Your task to perform on an android device: change notifications settings Image 0: 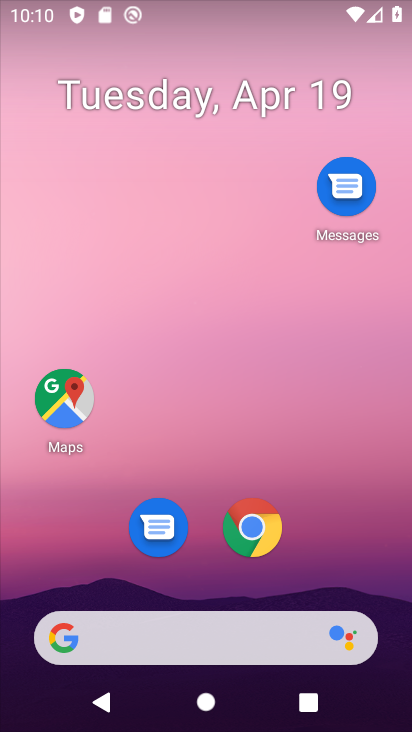
Step 0: drag from (327, 542) to (312, 209)
Your task to perform on an android device: change notifications settings Image 1: 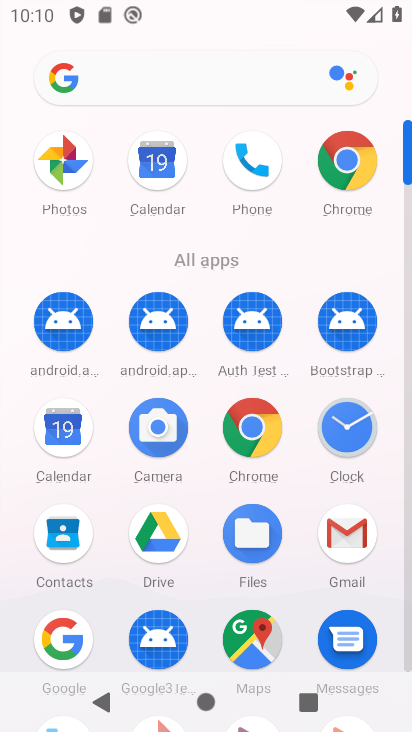
Step 1: drag from (303, 640) to (298, 313)
Your task to perform on an android device: change notifications settings Image 2: 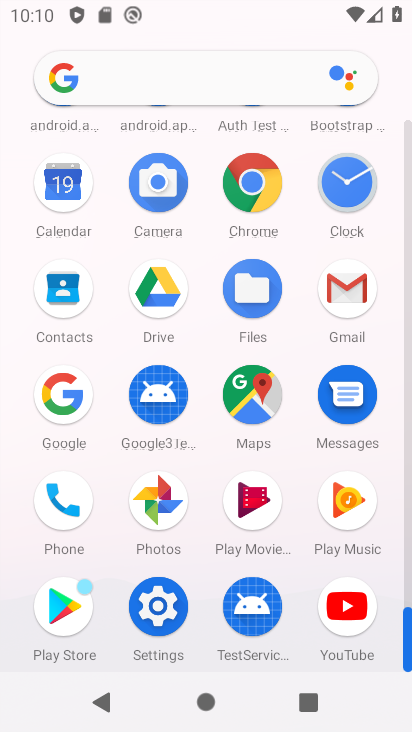
Step 2: click (174, 615)
Your task to perform on an android device: change notifications settings Image 3: 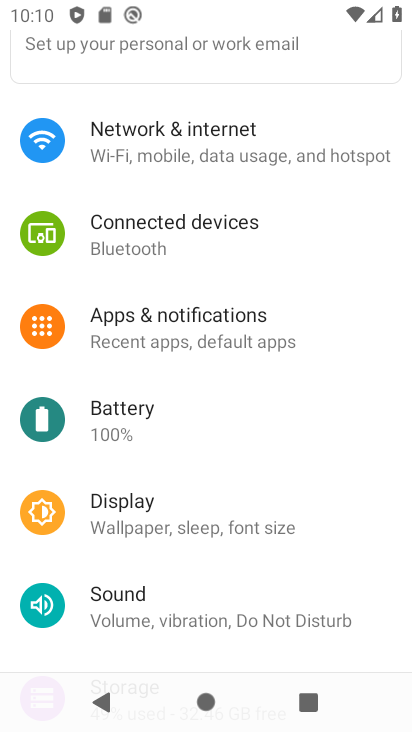
Step 3: click (220, 344)
Your task to perform on an android device: change notifications settings Image 4: 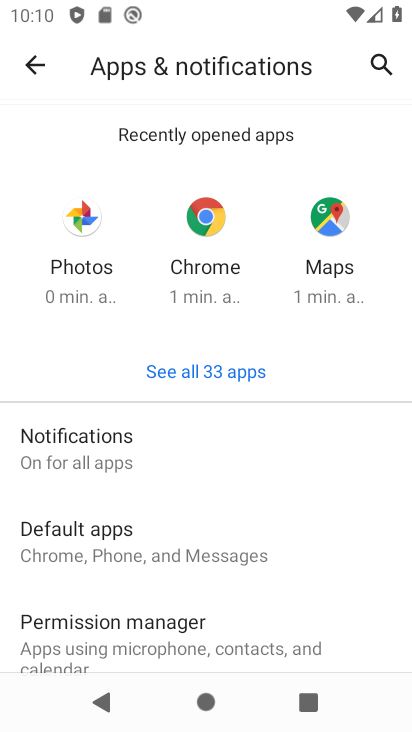
Step 4: click (193, 462)
Your task to perform on an android device: change notifications settings Image 5: 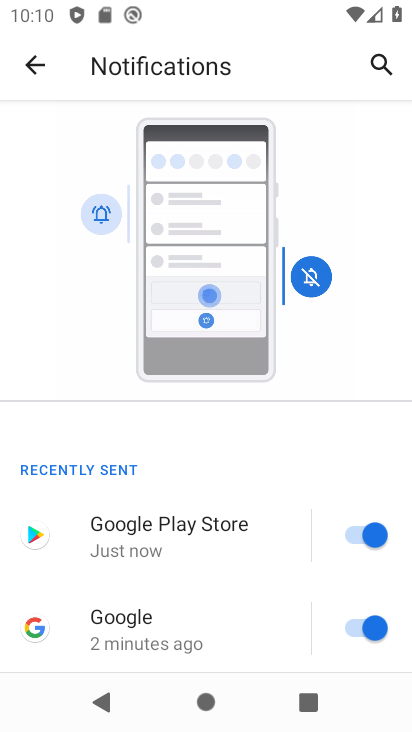
Step 5: task complete